Your task to perform on an android device: What's the weather? Image 0: 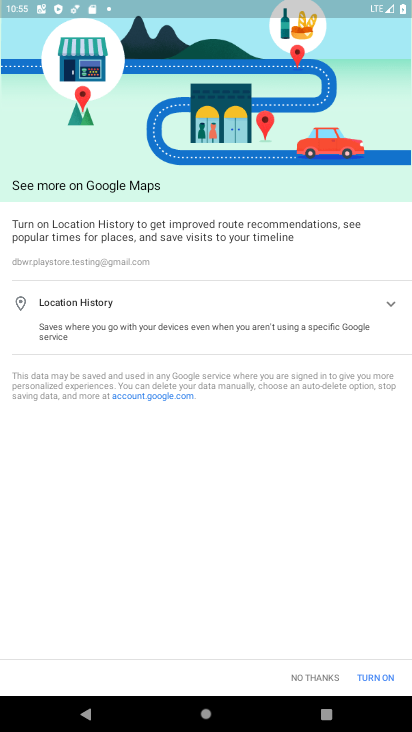
Step 0: press home button
Your task to perform on an android device: What's the weather? Image 1: 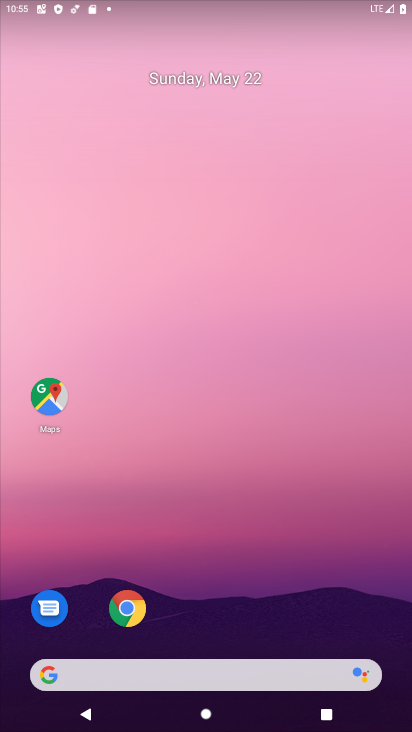
Step 1: drag from (242, 723) to (245, 197)
Your task to perform on an android device: What's the weather? Image 2: 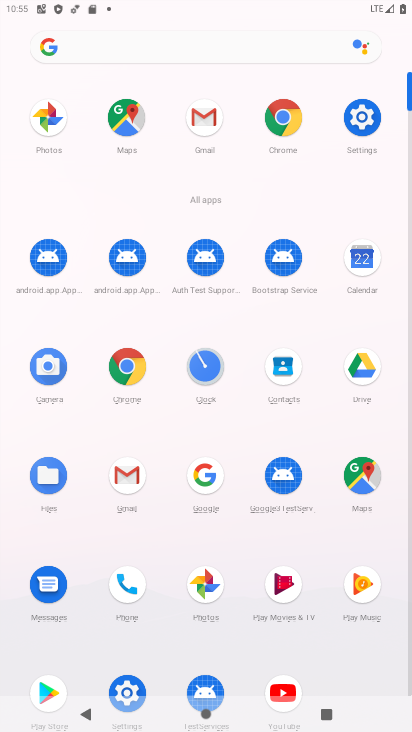
Step 2: click (203, 478)
Your task to perform on an android device: What's the weather? Image 3: 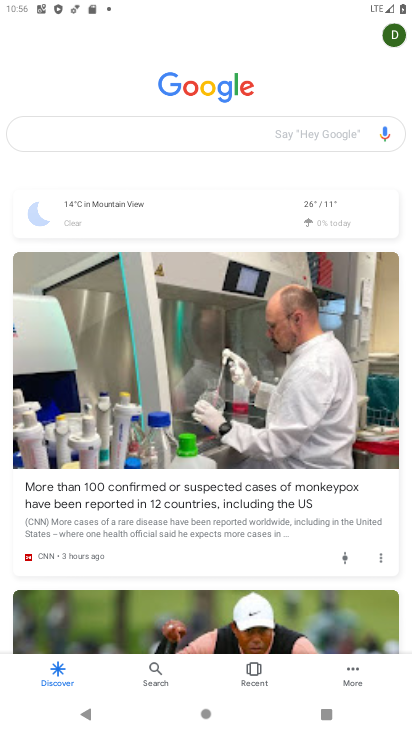
Step 3: click (99, 208)
Your task to perform on an android device: What's the weather? Image 4: 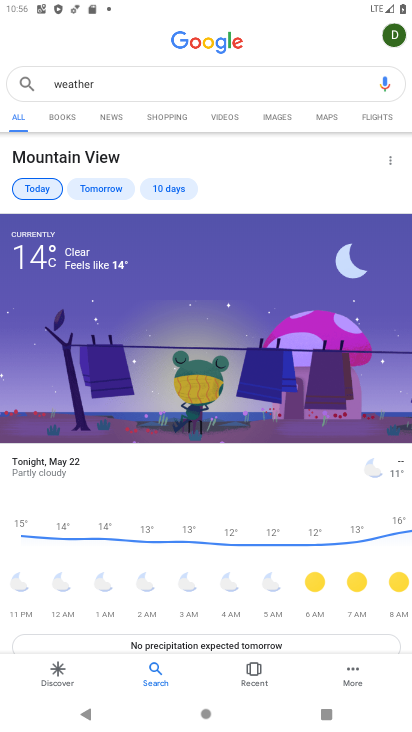
Step 4: task complete